Your task to perform on an android device: Search for vegetarian restaurants on Maps Image 0: 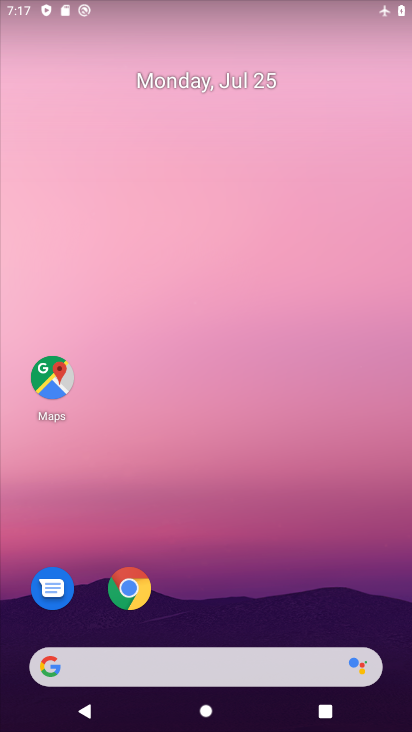
Step 0: click (38, 380)
Your task to perform on an android device: Search for vegetarian restaurants on Maps Image 1: 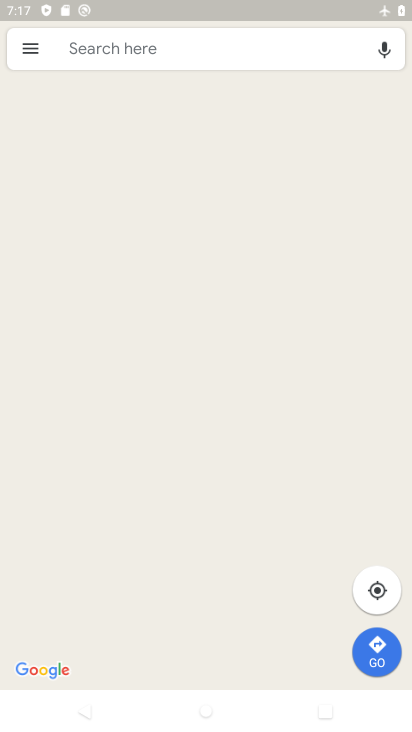
Step 1: click (213, 52)
Your task to perform on an android device: Search for vegetarian restaurants on Maps Image 2: 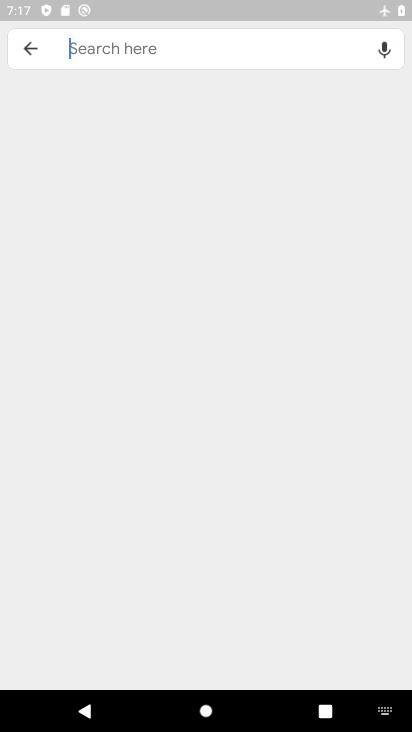
Step 2: type "vegetarian restaurants"
Your task to perform on an android device: Search for vegetarian restaurants on Maps Image 3: 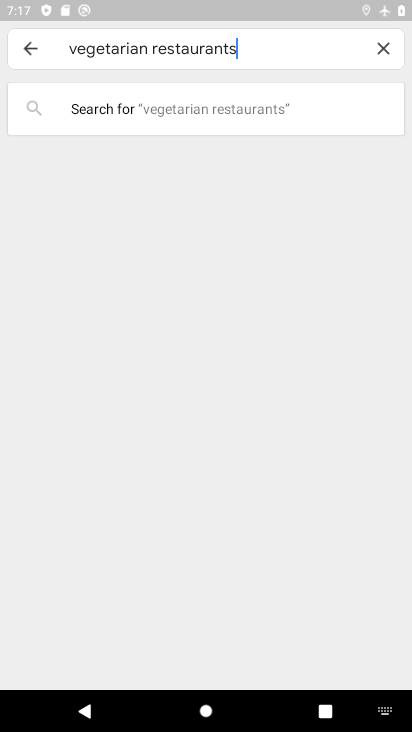
Step 3: press enter
Your task to perform on an android device: Search for vegetarian restaurants on Maps Image 4: 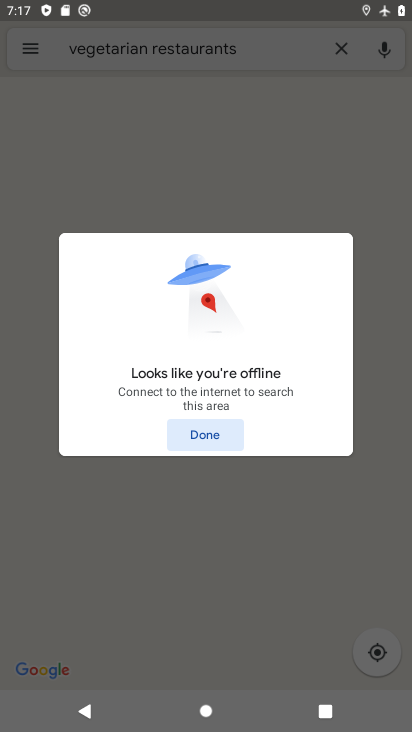
Step 4: click (222, 430)
Your task to perform on an android device: Search for vegetarian restaurants on Maps Image 5: 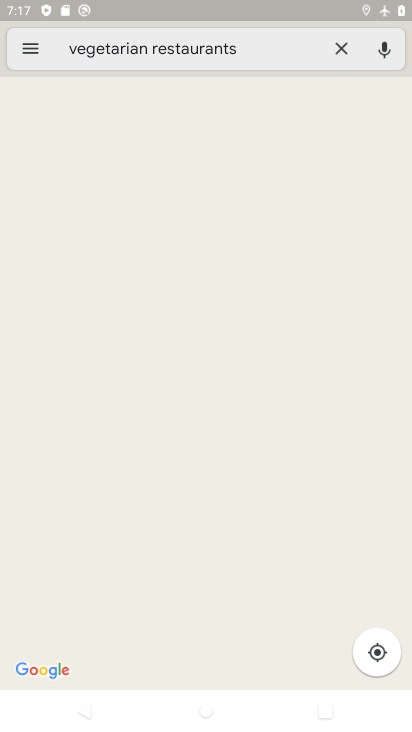
Step 5: drag from (338, 2) to (307, 378)
Your task to perform on an android device: Search for vegetarian restaurants on Maps Image 6: 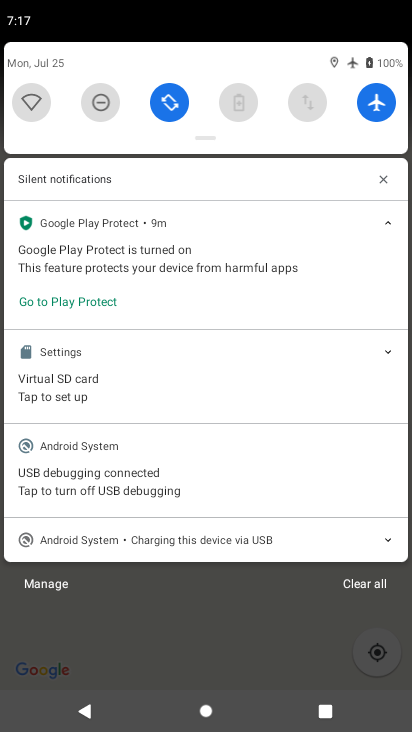
Step 6: click (378, 96)
Your task to perform on an android device: Search for vegetarian restaurants on Maps Image 7: 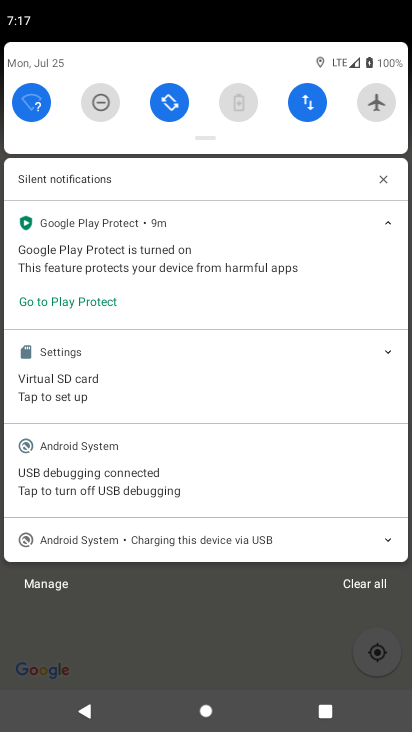
Step 7: click (354, 584)
Your task to perform on an android device: Search for vegetarian restaurants on Maps Image 8: 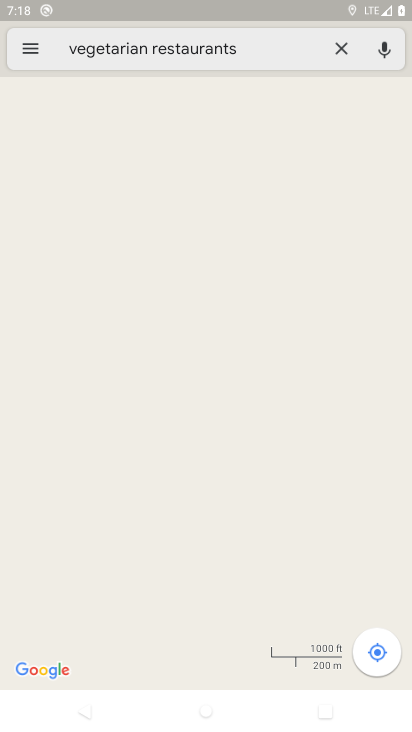
Step 8: click (389, 210)
Your task to perform on an android device: Search for vegetarian restaurants on Maps Image 9: 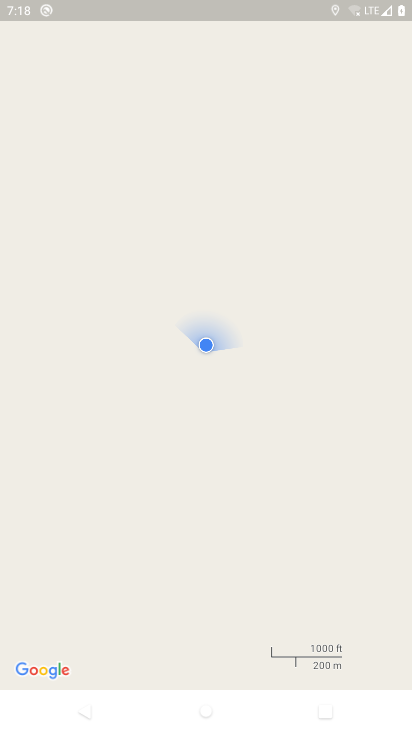
Step 9: press enter
Your task to perform on an android device: Search for vegetarian restaurants on Maps Image 10: 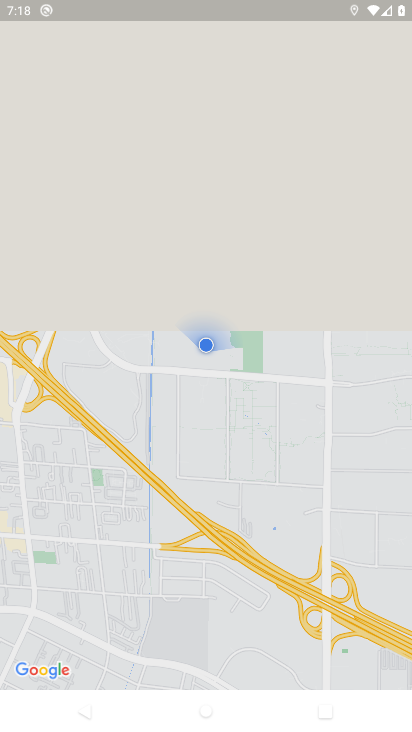
Step 10: task complete